Your task to perform on an android device: toggle notifications settings in the gmail app Image 0: 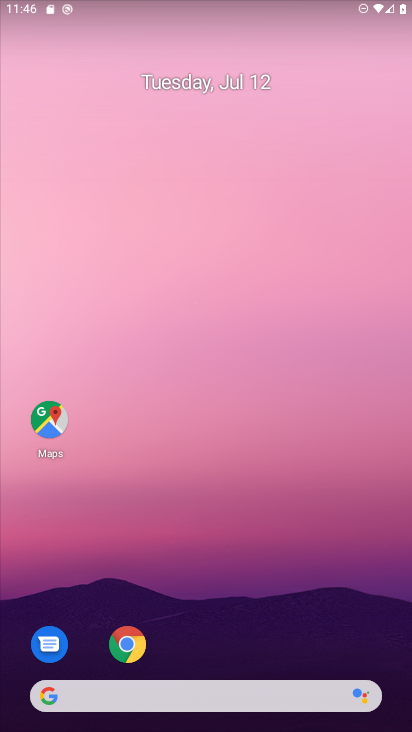
Step 0: drag from (210, 705) to (375, 138)
Your task to perform on an android device: toggle notifications settings in the gmail app Image 1: 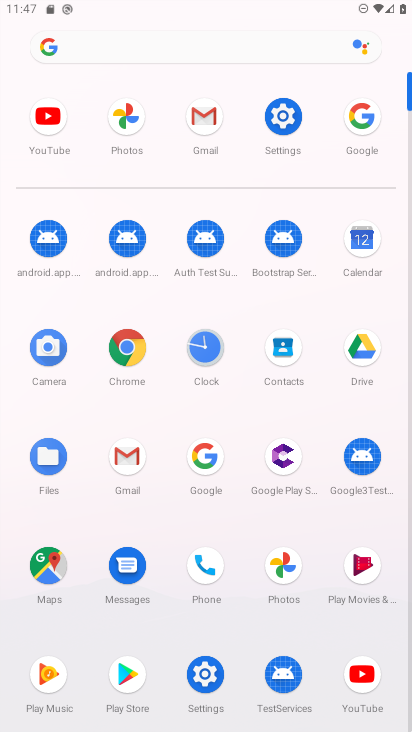
Step 1: click (204, 121)
Your task to perform on an android device: toggle notifications settings in the gmail app Image 2: 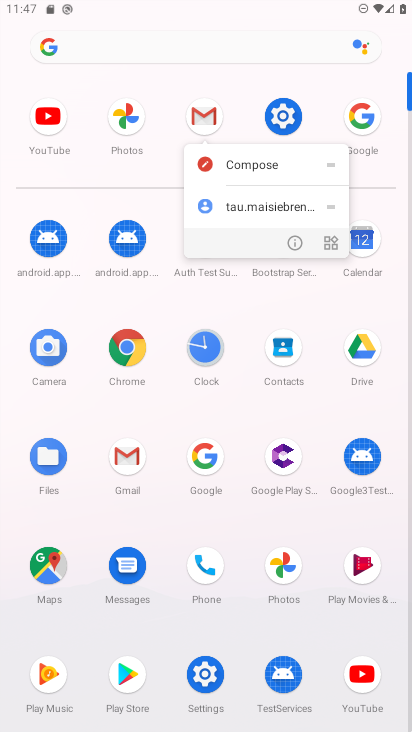
Step 2: click (289, 240)
Your task to perform on an android device: toggle notifications settings in the gmail app Image 3: 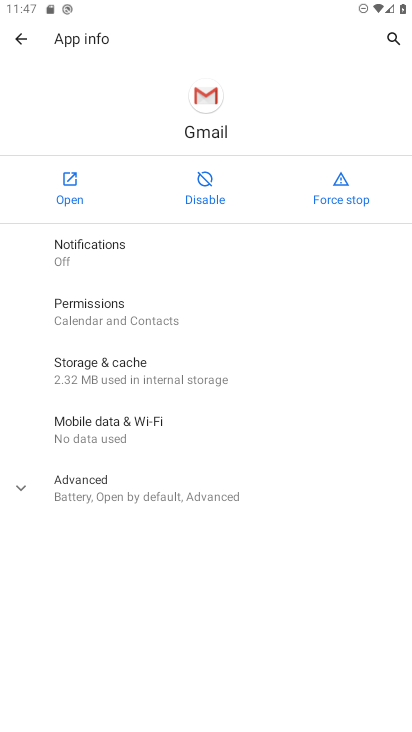
Step 3: click (111, 250)
Your task to perform on an android device: toggle notifications settings in the gmail app Image 4: 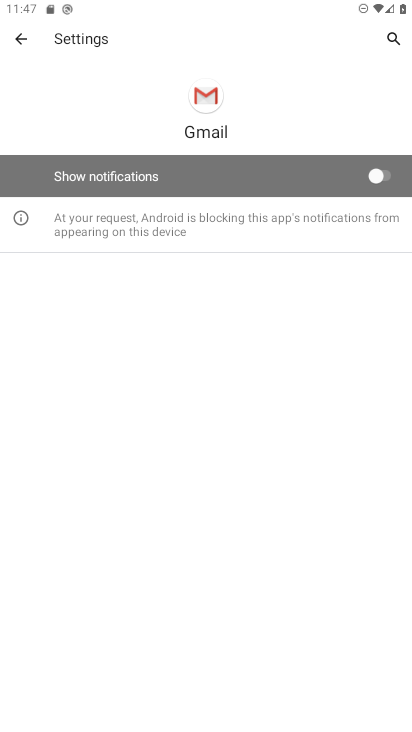
Step 4: task complete